Your task to perform on an android device: set an alarm Image 0: 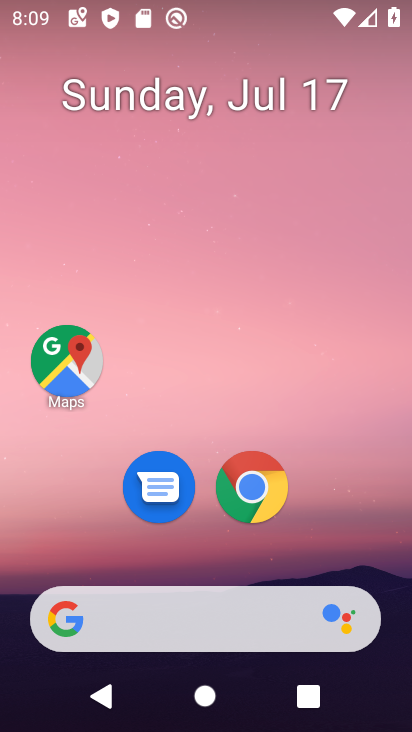
Step 0: drag from (170, 550) to (271, 19)
Your task to perform on an android device: set an alarm Image 1: 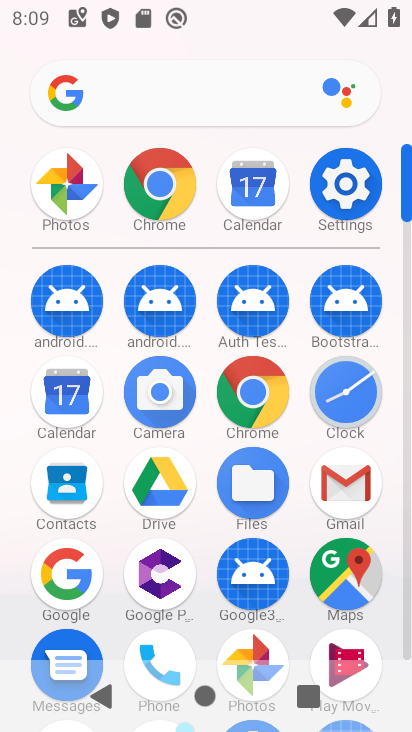
Step 1: click (340, 406)
Your task to perform on an android device: set an alarm Image 2: 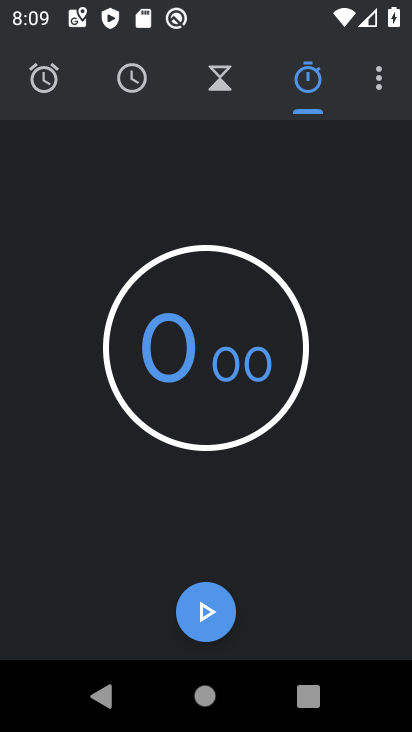
Step 2: click (50, 81)
Your task to perform on an android device: set an alarm Image 3: 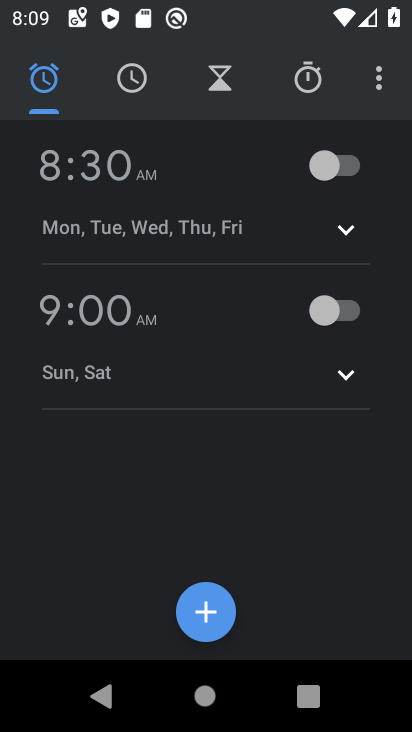
Step 3: click (325, 169)
Your task to perform on an android device: set an alarm Image 4: 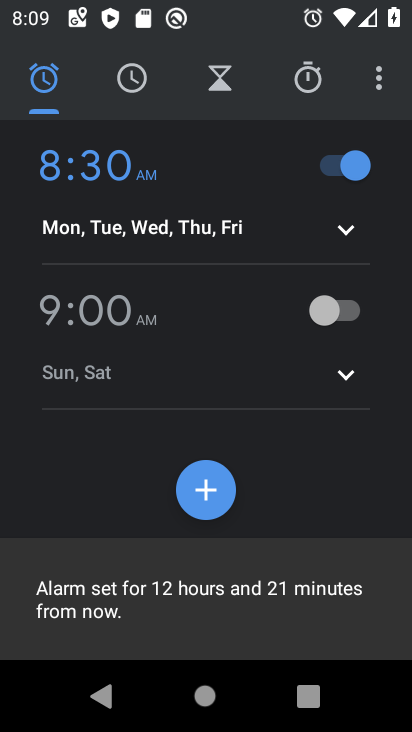
Step 4: task complete